Your task to perform on an android device: turn on data saver in the chrome app Image 0: 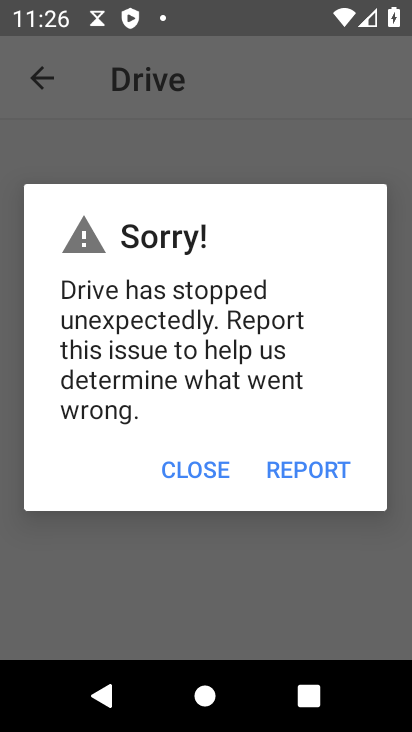
Step 0: press home button
Your task to perform on an android device: turn on data saver in the chrome app Image 1: 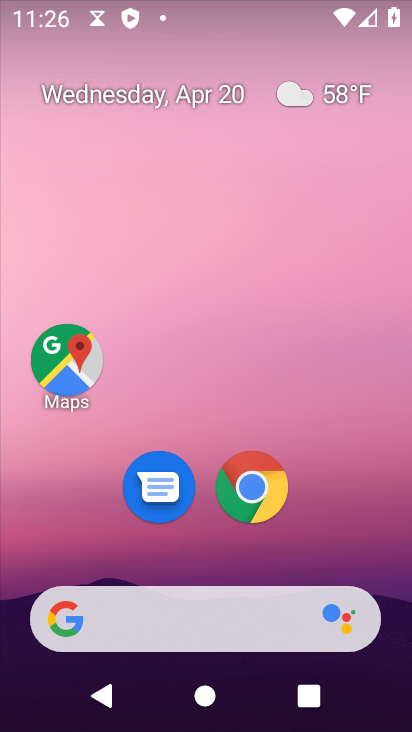
Step 1: drag from (314, 475) to (284, 26)
Your task to perform on an android device: turn on data saver in the chrome app Image 2: 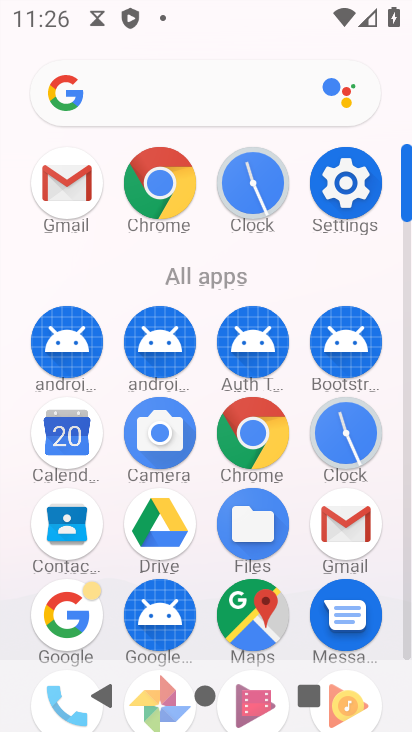
Step 2: click (156, 182)
Your task to perform on an android device: turn on data saver in the chrome app Image 3: 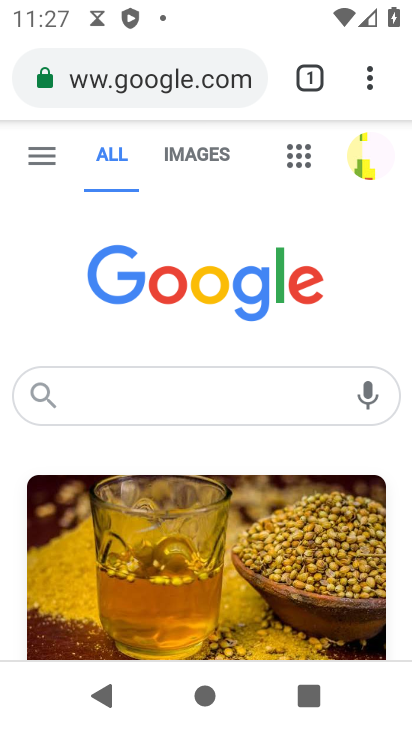
Step 3: drag from (368, 82) to (180, 531)
Your task to perform on an android device: turn on data saver in the chrome app Image 4: 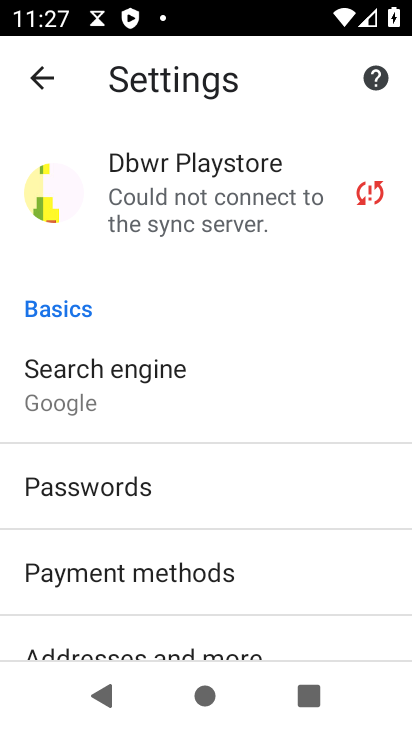
Step 4: drag from (230, 591) to (248, 224)
Your task to perform on an android device: turn on data saver in the chrome app Image 5: 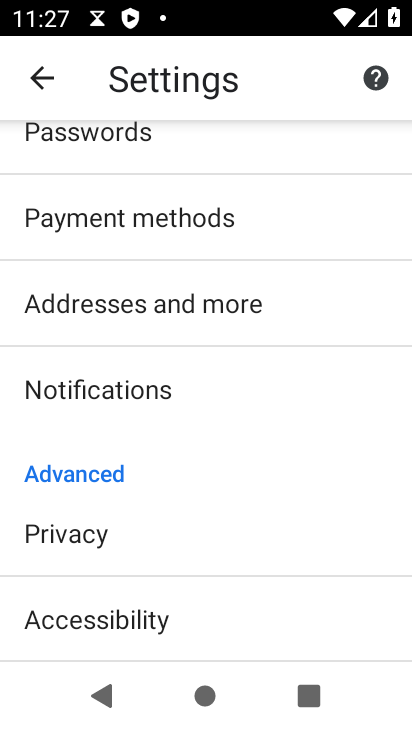
Step 5: drag from (194, 519) to (211, 205)
Your task to perform on an android device: turn on data saver in the chrome app Image 6: 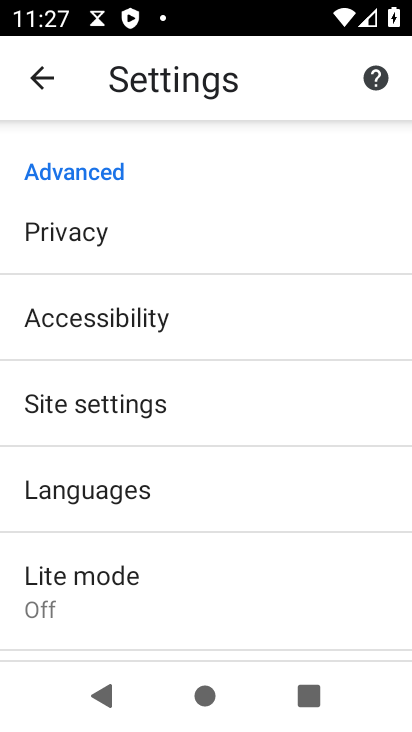
Step 6: drag from (218, 536) to (197, 262)
Your task to perform on an android device: turn on data saver in the chrome app Image 7: 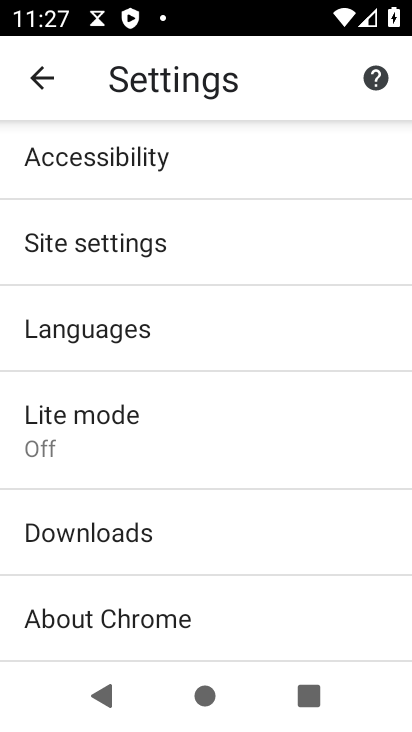
Step 7: click (110, 410)
Your task to perform on an android device: turn on data saver in the chrome app Image 8: 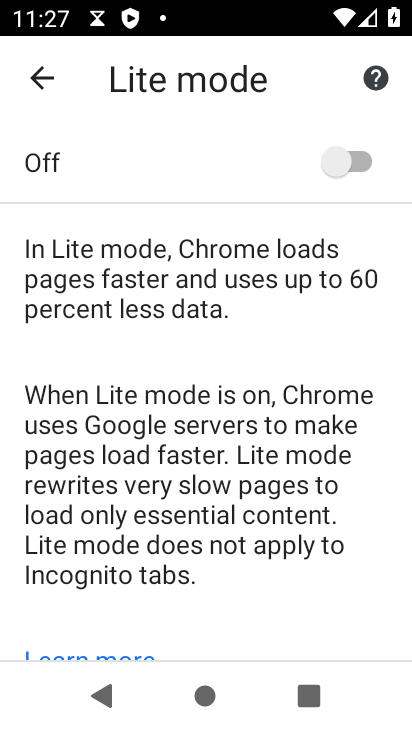
Step 8: click (335, 158)
Your task to perform on an android device: turn on data saver in the chrome app Image 9: 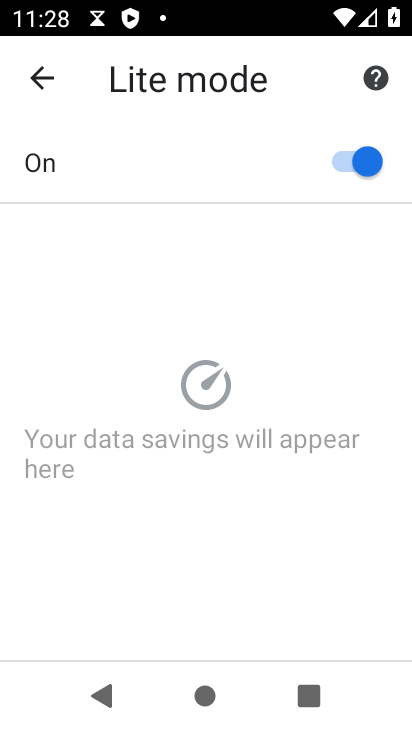
Step 9: task complete